Your task to perform on an android device: open app "ColorNote Notepad Notes" (install if not already installed) Image 0: 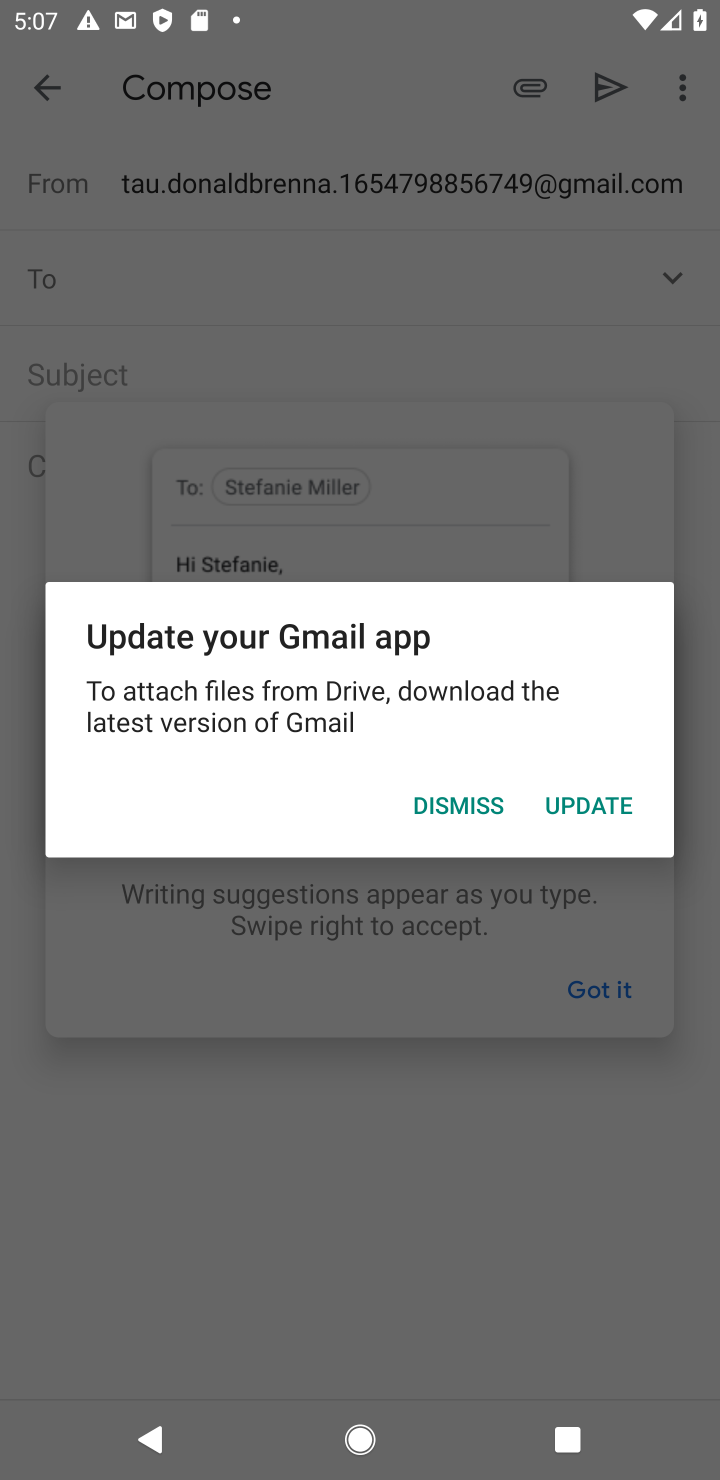
Step 0: press home button
Your task to perform on an android device: open app "ColorNote Notepad Notes" (install if not already installed) Image 1: 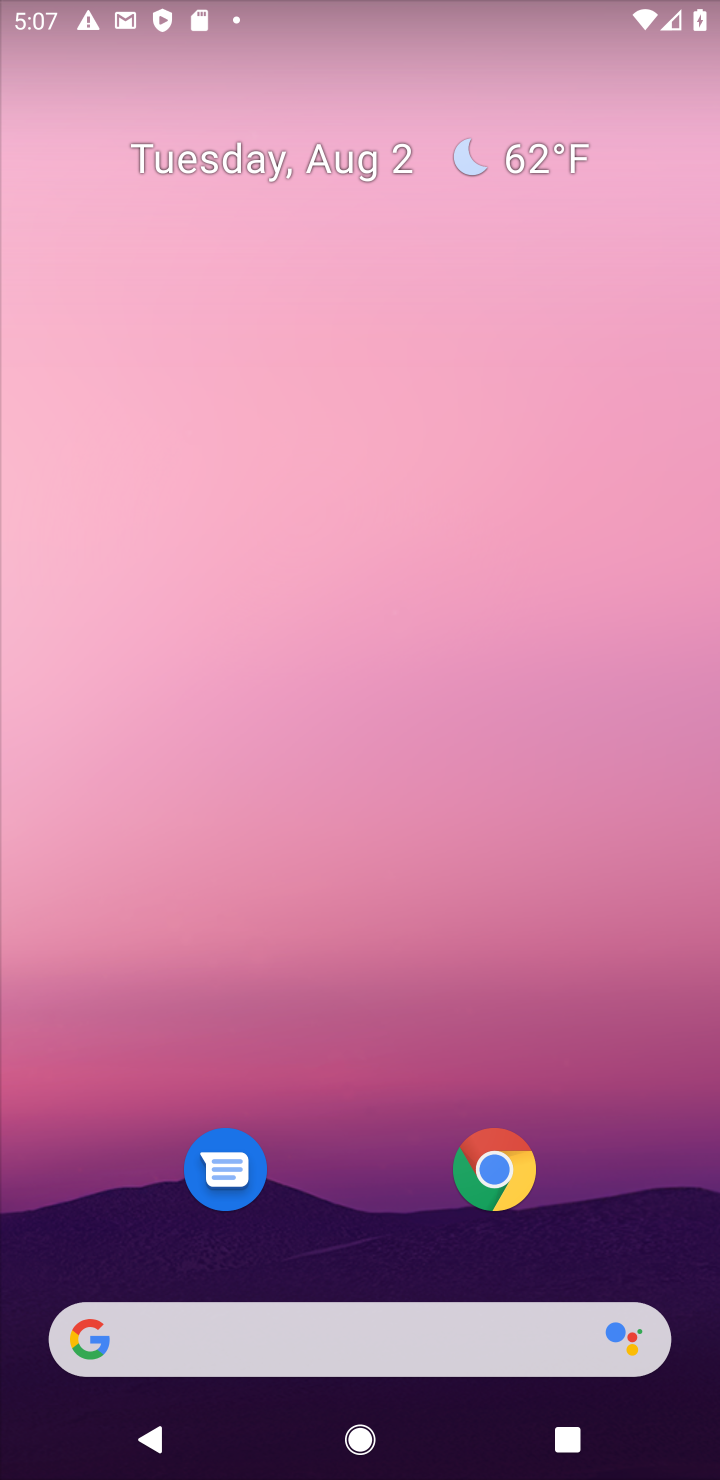
Step 1: drag from (682, 1191) to (410, 570)
Your task to perform on an android device: open app "ColorNote Notepad Notes" (install if not already installed) Image 2: 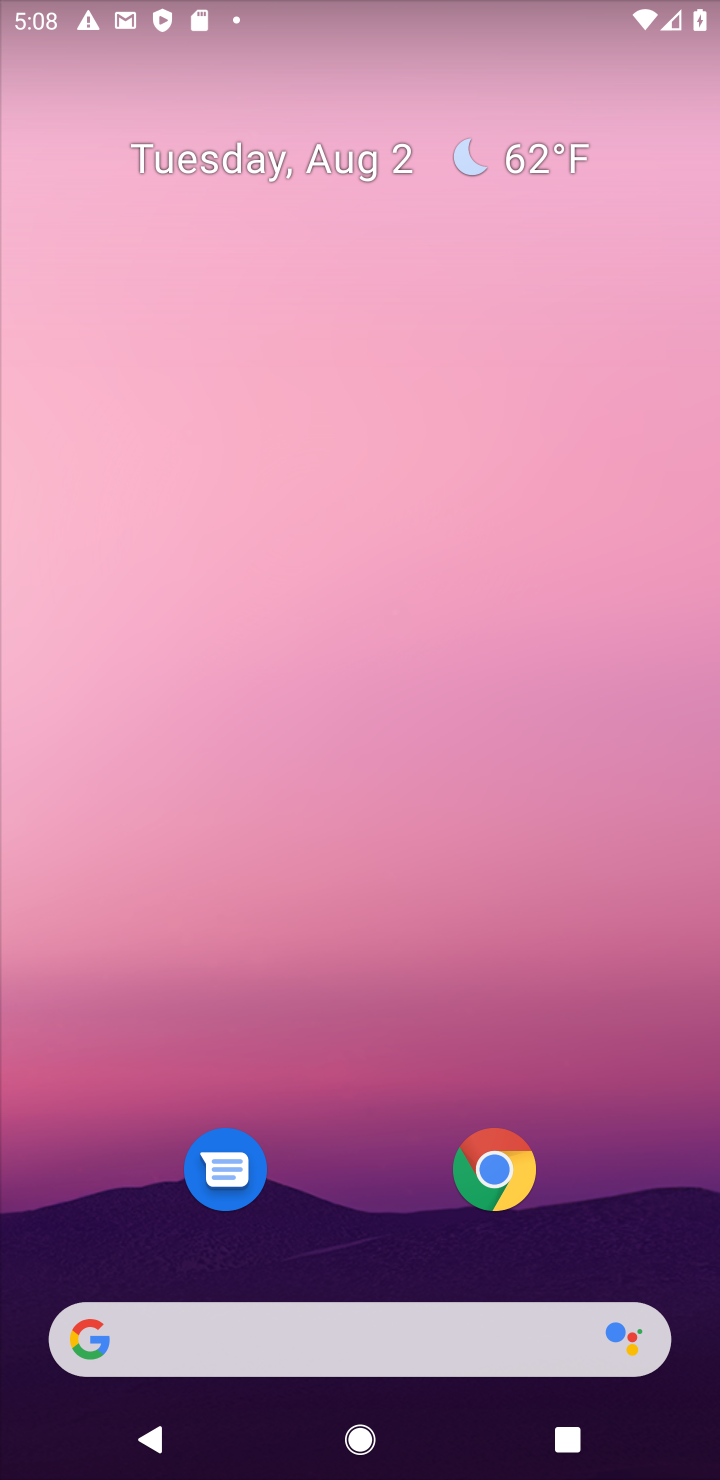
Step 2: drag from (288, 929) to (120, 539)
Your task to perform on an android device: open app "ColorNote Notepad Notes" (install if not already installed) Image 3: 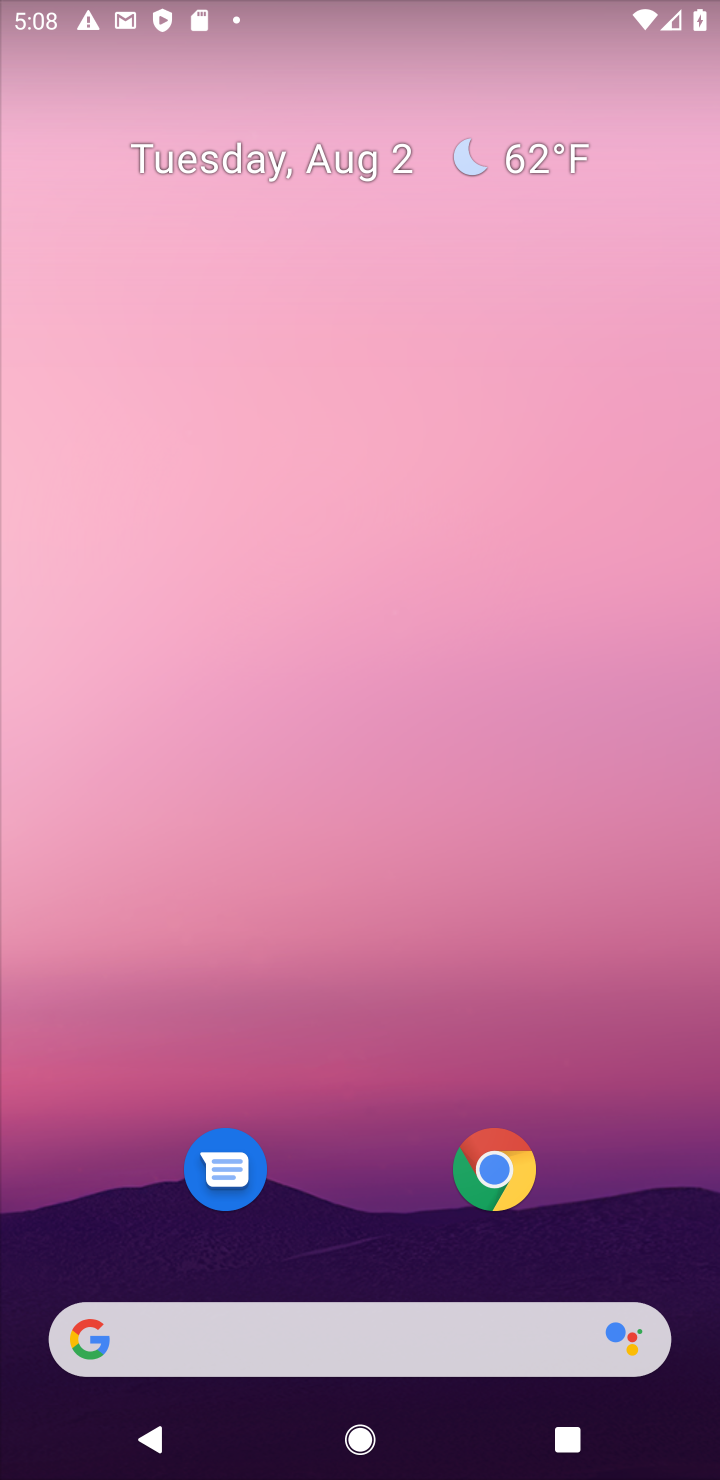
Step 3: drag from (376, 1077) to (105, 324)
Your task to perform on an android device: open app "ColorNote Notepad Notes" (install if not already installed) Image 4: 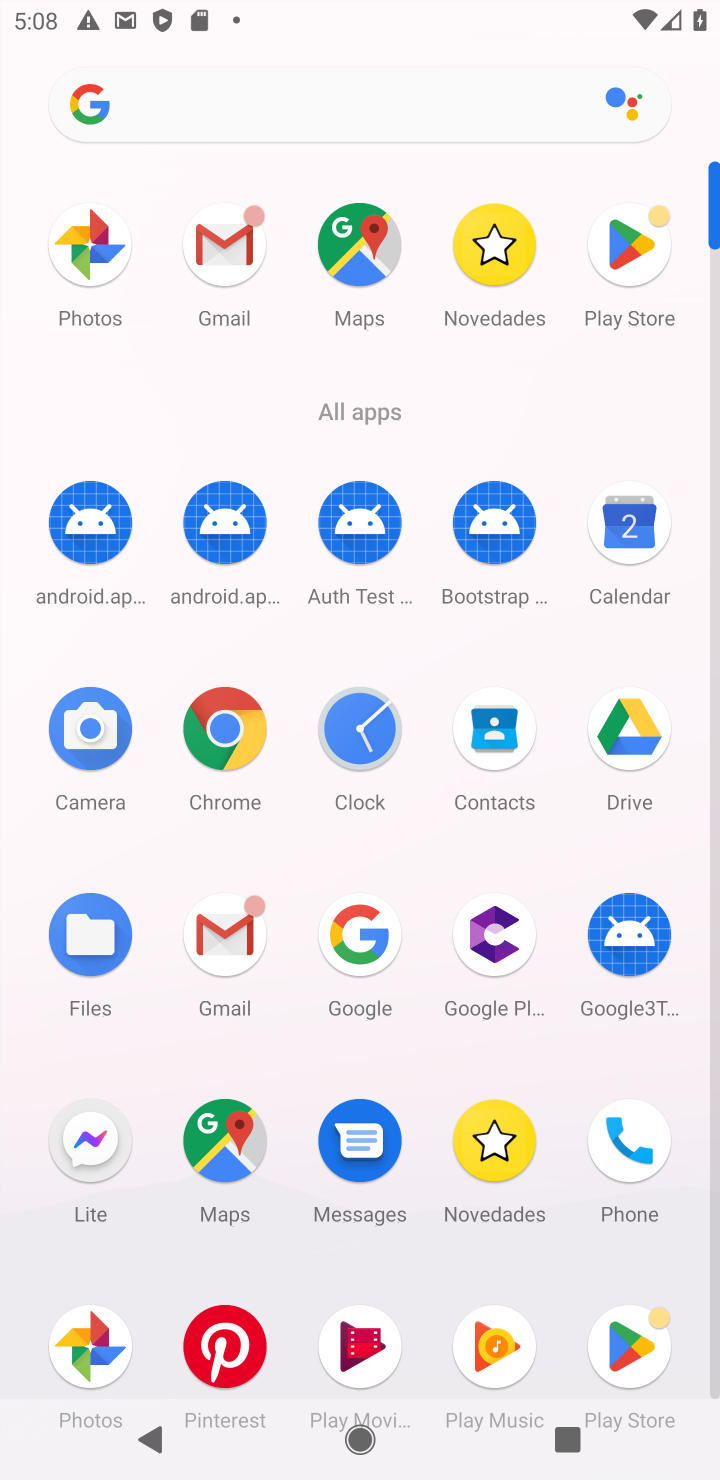
Step 4: click (639, 240)
Your task to perform on an android device: open app "ColorNote Notepad Notes" (install if not already installed) Image 5: 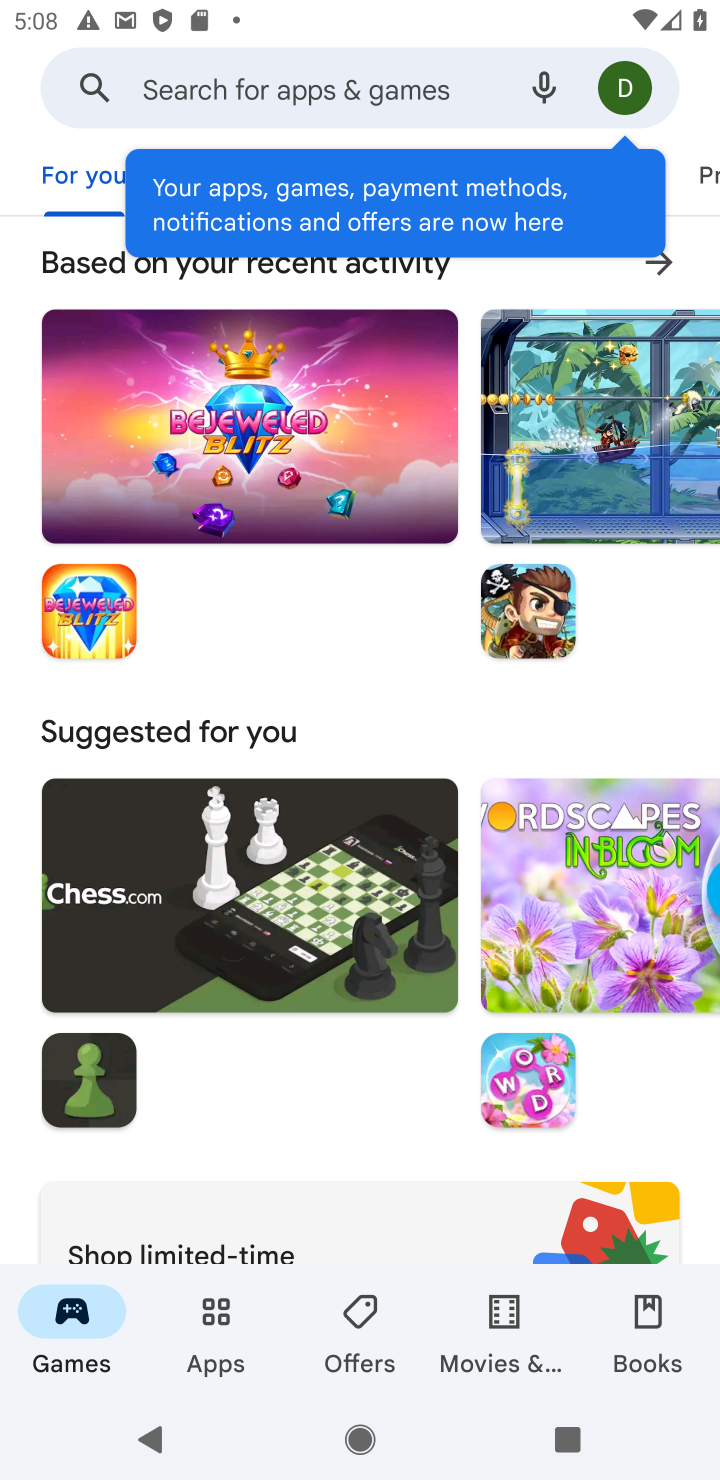
Step 5: click (410, 95)
Your task to perform on an android device: open app "ColorNote Notepad Notes" (install if not already installed) Image 6: 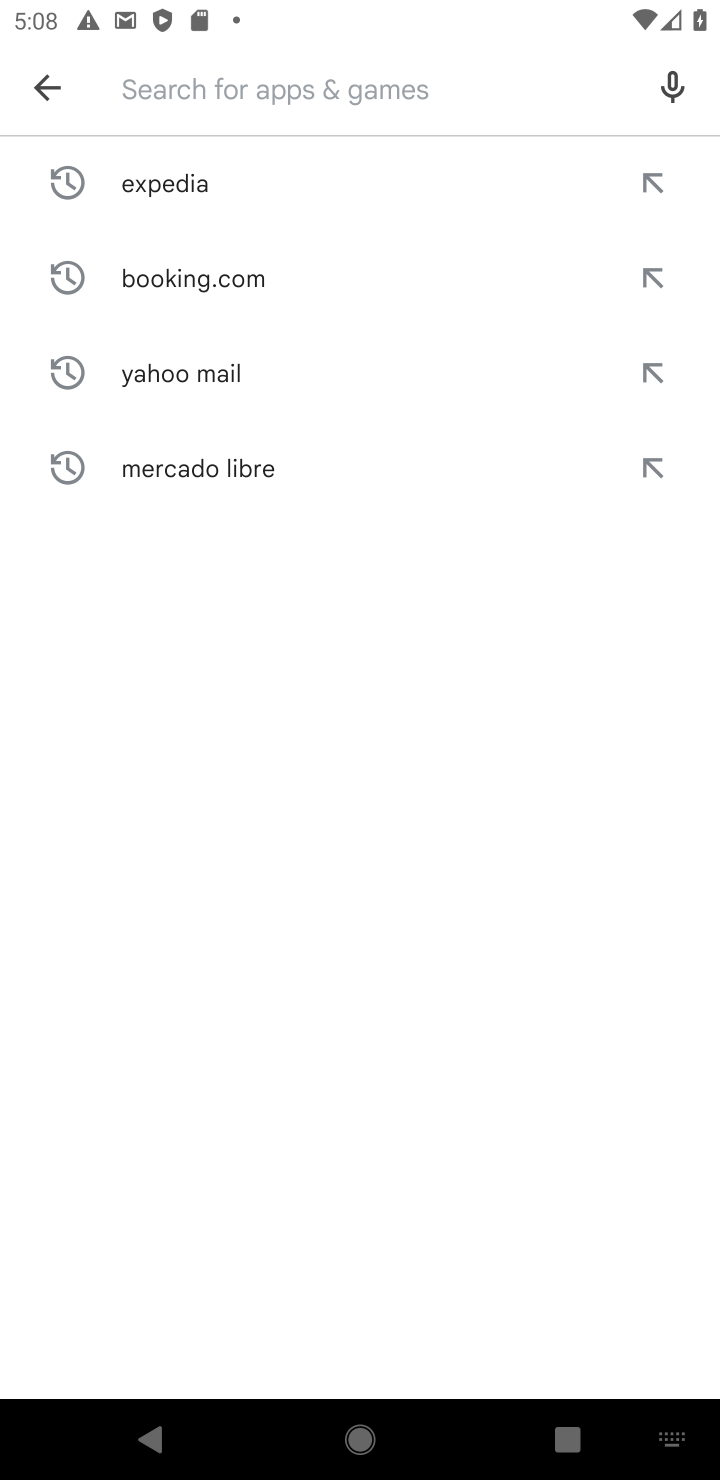
Step 6: type "colornote"
Your task to perform on an android device: open app "ColorNote Notepad Notes" (install if not already installed) Image 7: 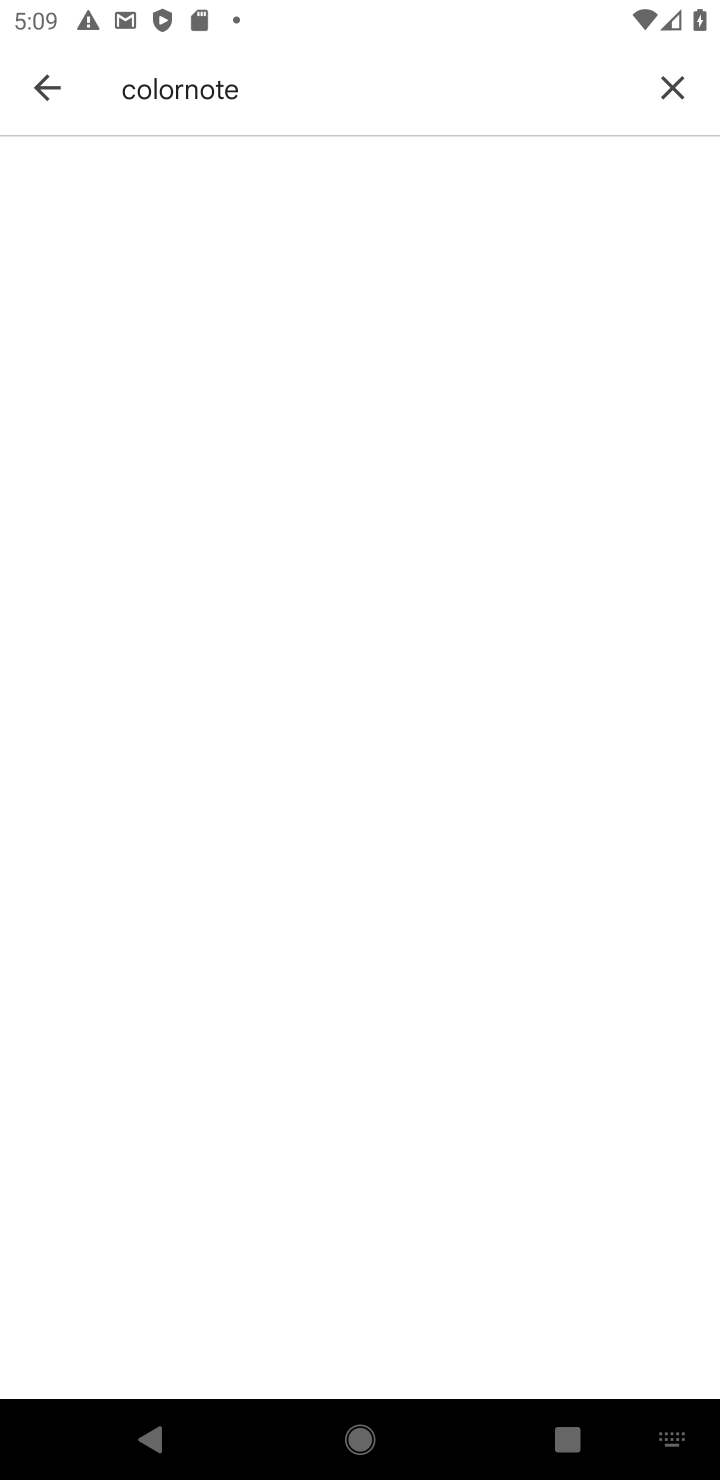
Step 7: type " notepad notes"
Your task to perform on an android device: open app "ColorNote Notepad Notes" (install if not already installed) Image 8: 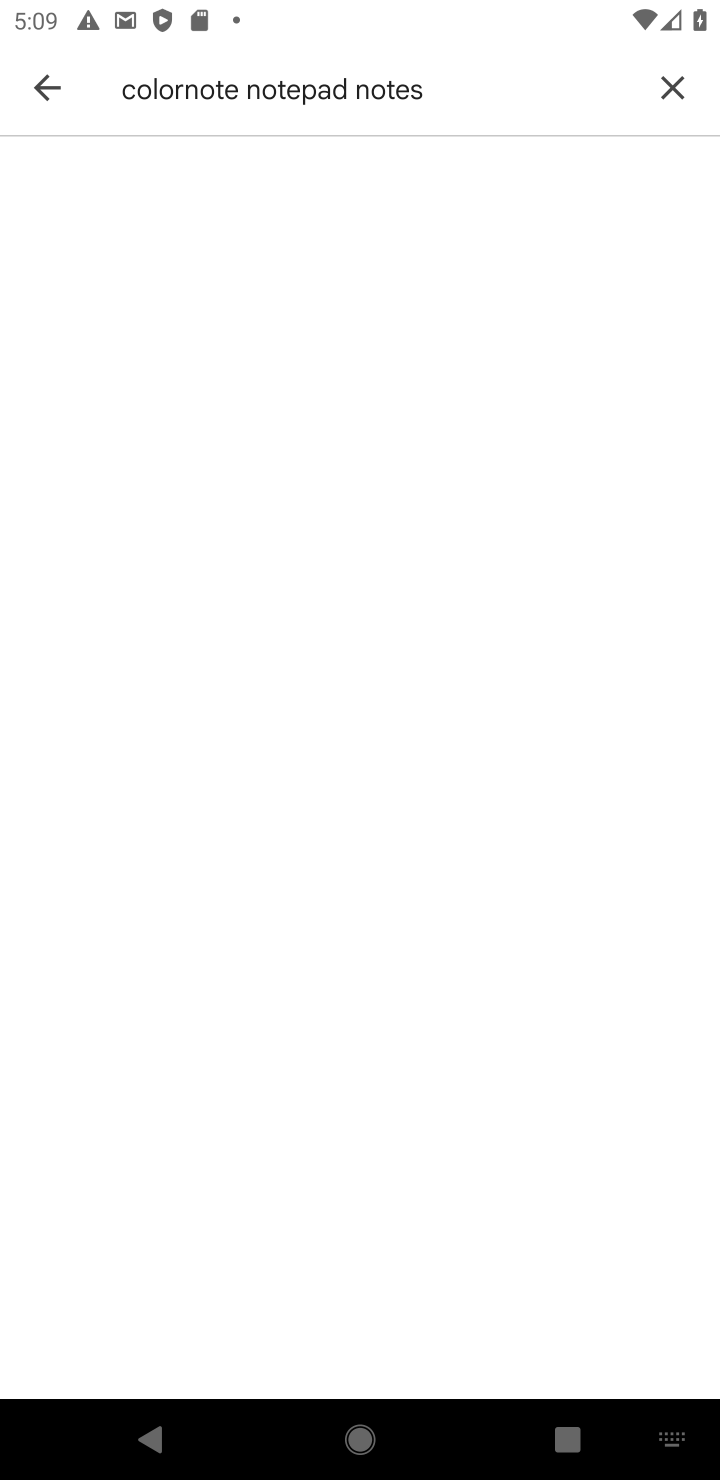
Step 8: press enter
Your task to perform on an android device: open app "ColorNote Notepad Notes" (install if not already installed) Image 9: 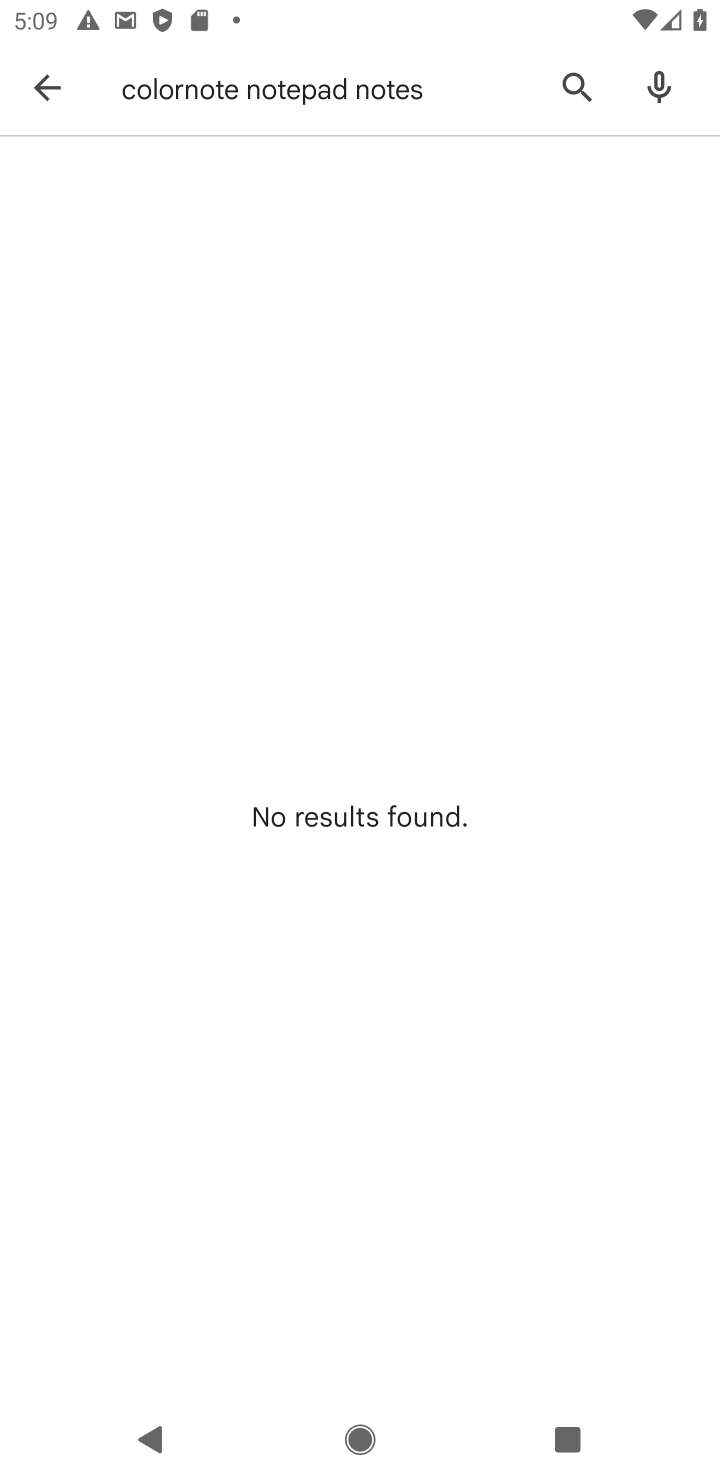
Step 9: task complete